Your task to perform on an android device: open app "Mercado Libre" Image 0: 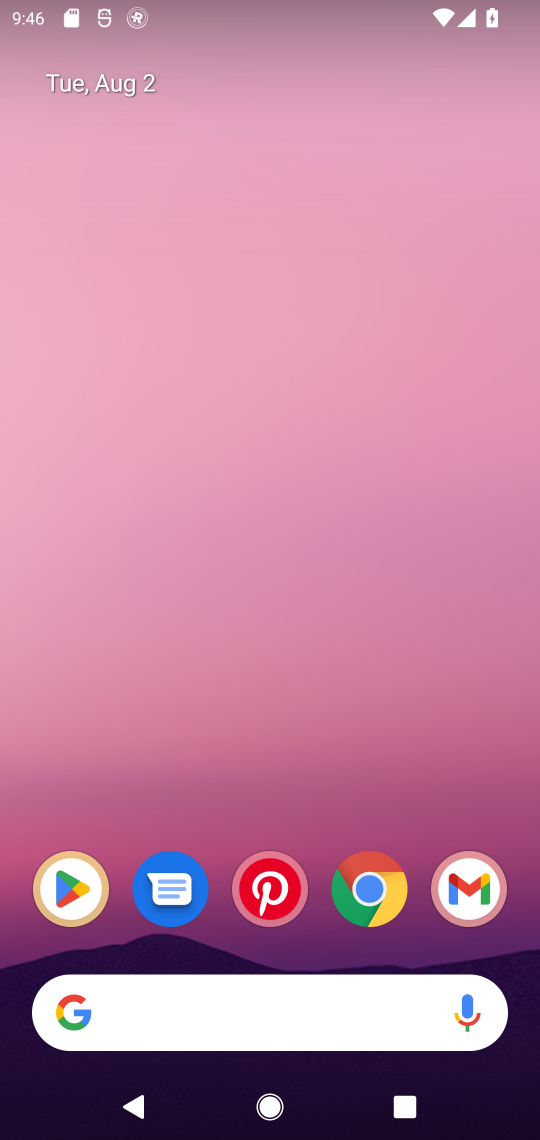
Step 0: press home button
Your task to perform on an android device: open app "Mercado Libre" Image 1: 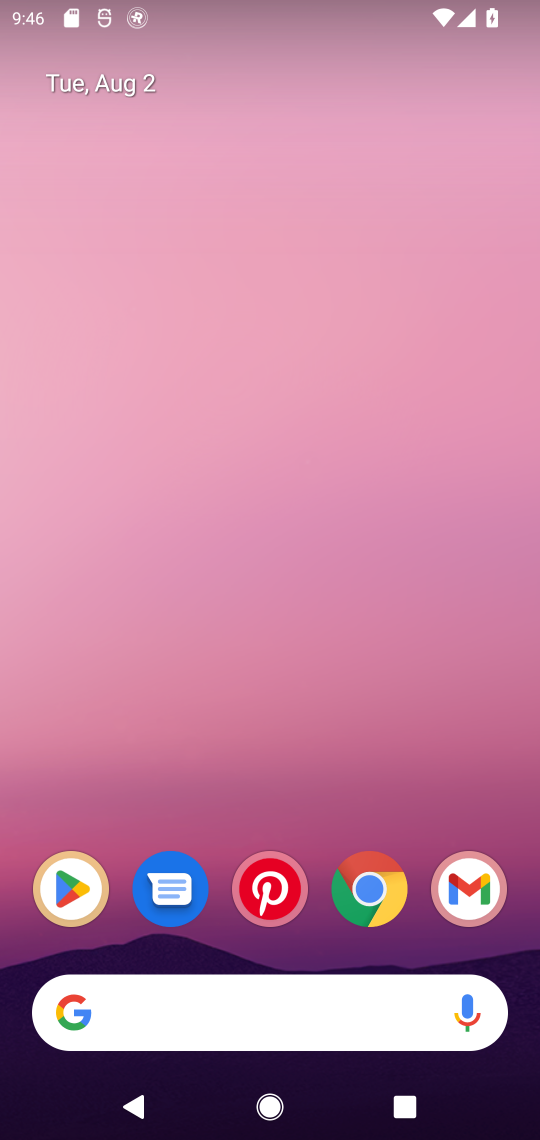
Step 1: click (62, 898)
Your task to perform on an android device: open app "Mercado Libre" Image 2: 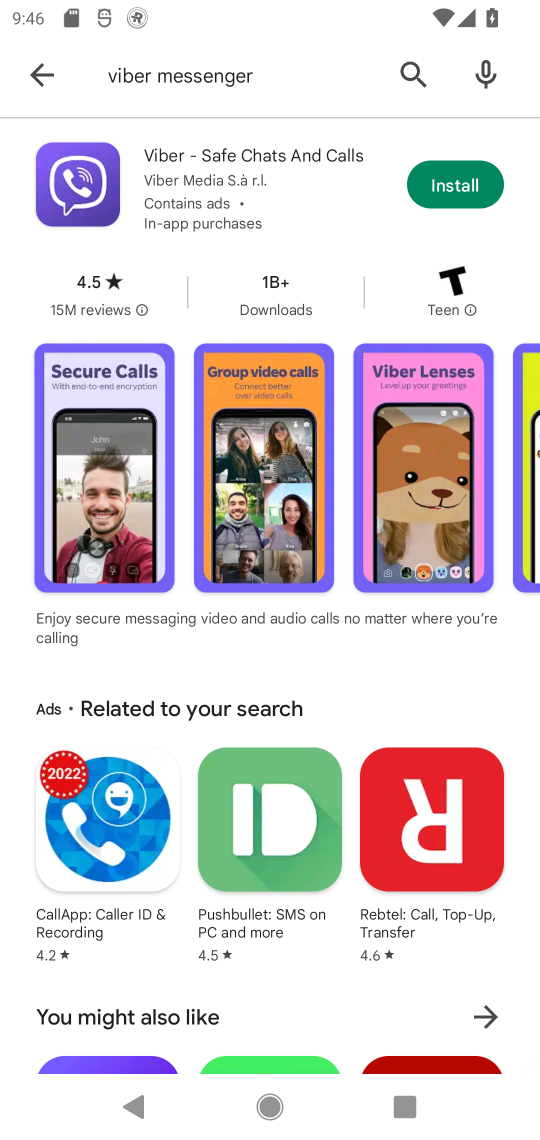
Step 2: click (407, 62)
Your task to perform on an android device: open app "Mercado Libre" Image 3: 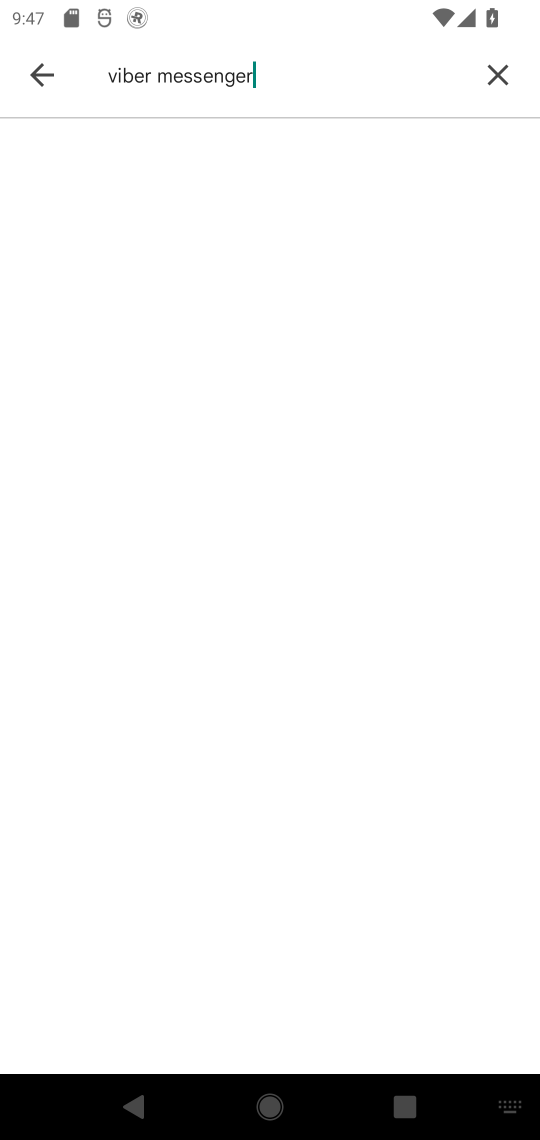
Step 3: click (499, 78)
Your task to perform on an android device: open app "Mercado Libre" Image 4: 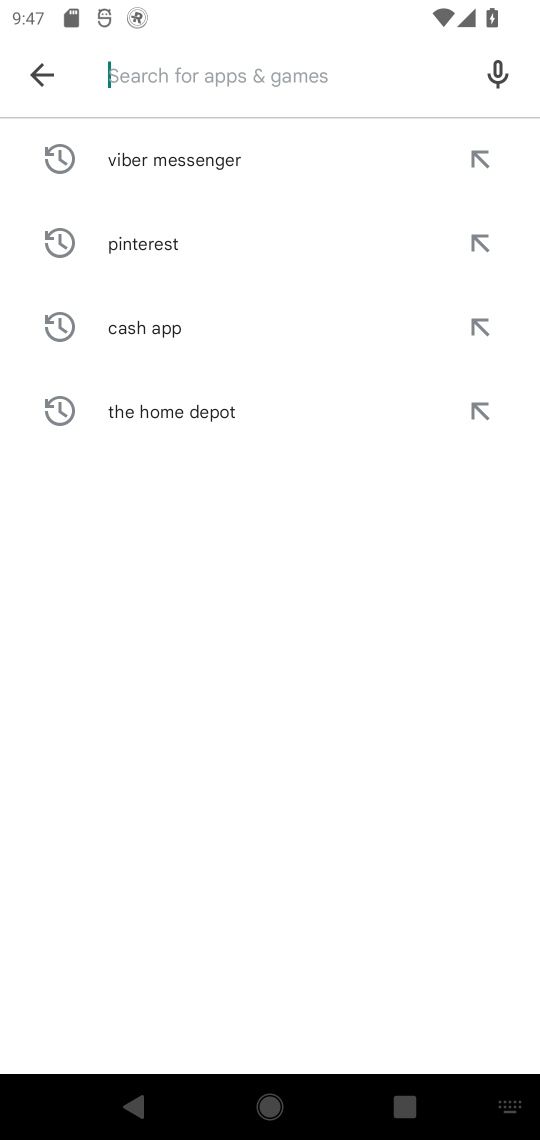
Step 4: type "Mercado Libre"
Your task to perform on an android device: open app "Mercado Libre" Image 5: 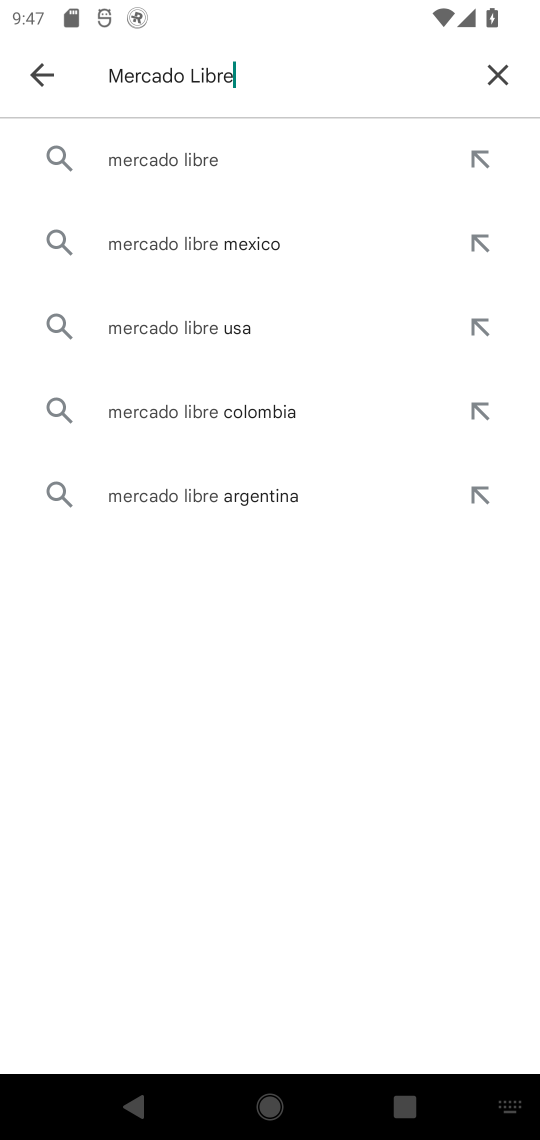
Step 5: click (189, 147)
Your task to perform on an android device: open app "Mercado Libre" Image 6: 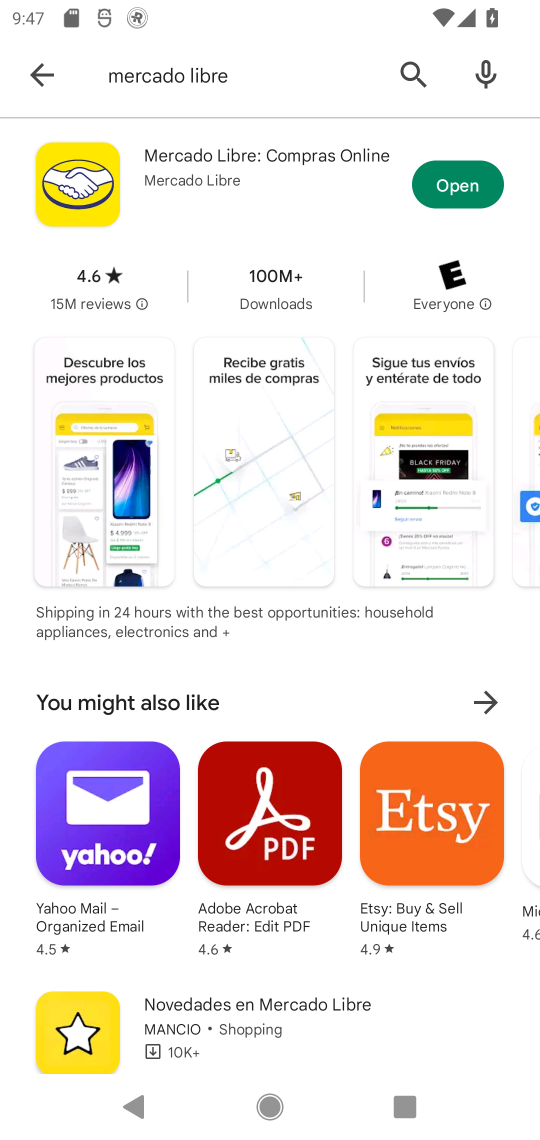
Step 6: click (473, 183)
Your task to perform on an android device: open app "Mercado Libre" Image 7: 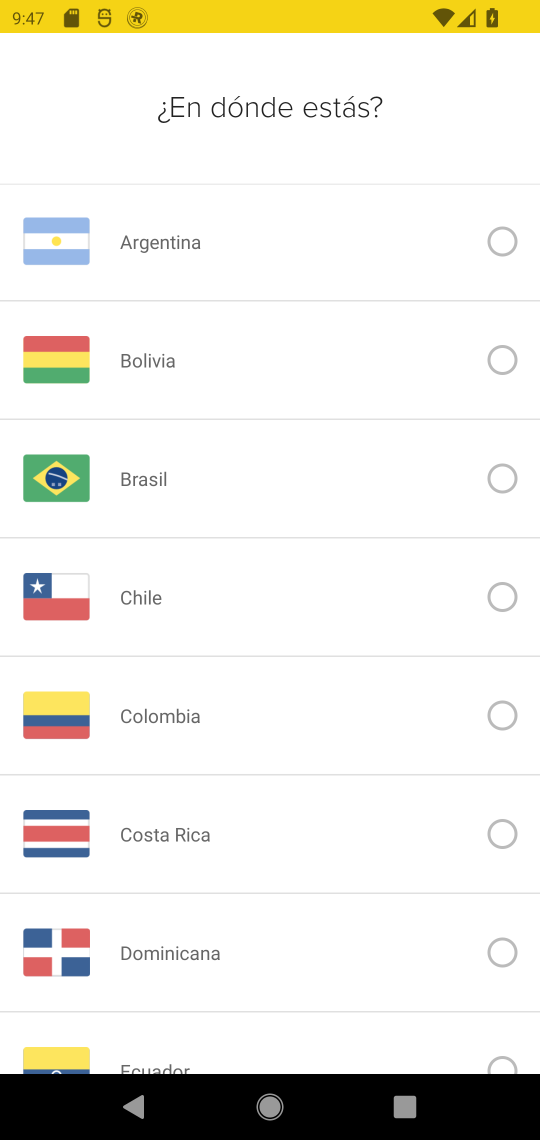
Step 7: task complete